Your task to perform on an android device: Open display settings Image 0: 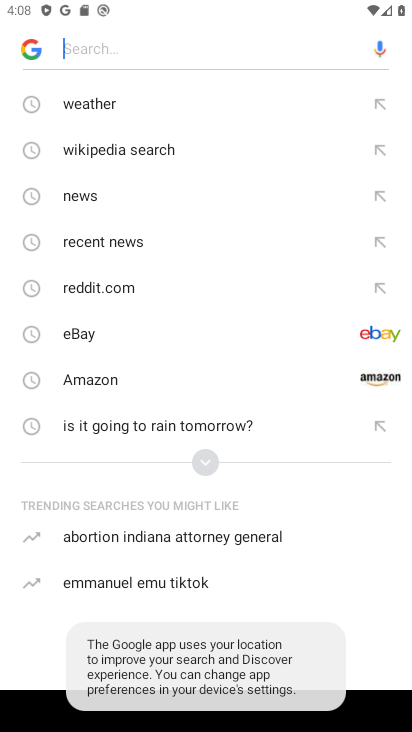
Step 0: press home button
Your task to perform on an android device: Open display settings Image 1: 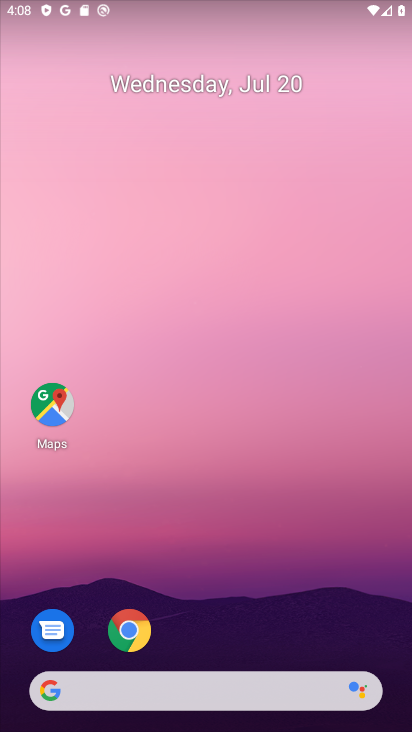
Step 1: click (158, 211)
Your task to perform on an android device: Open display settings Image 2: 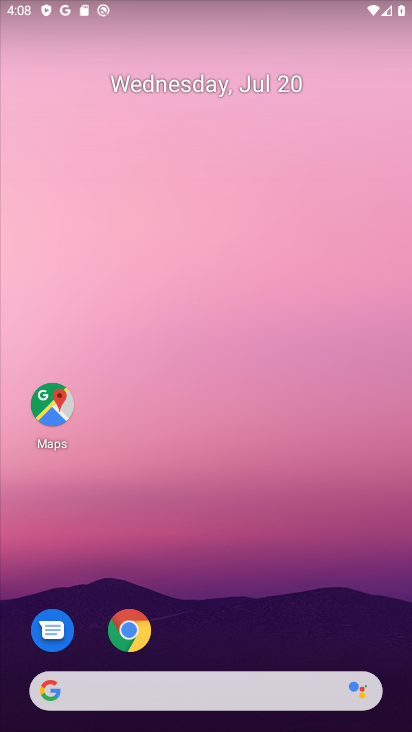
Step 2: drag from (265, 664) to (266, 88)
Your task to perform on an android device: Open display settings Image 3: 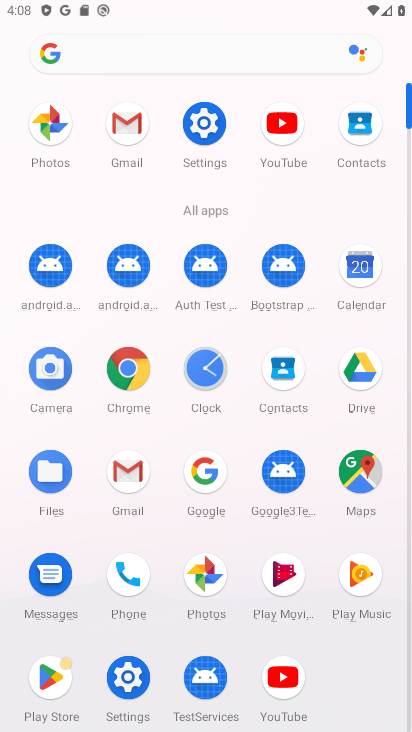
Step 3: click (205, 122)
Your task to perform on an android device: Open display settings Image 4: 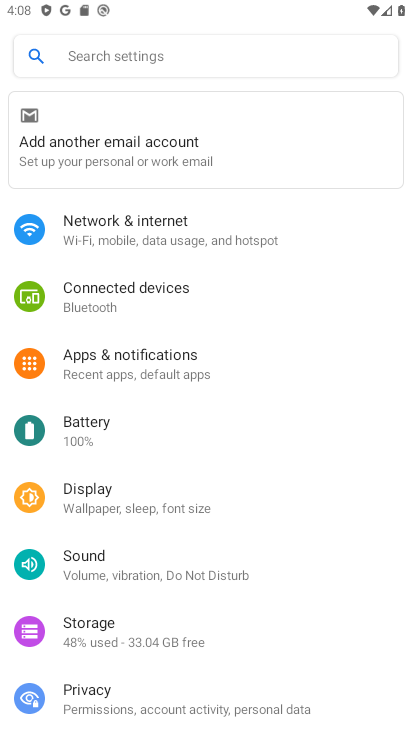
Step 4: click (86, 495)
Your task to perform on an android device: Open display settings Image 5: 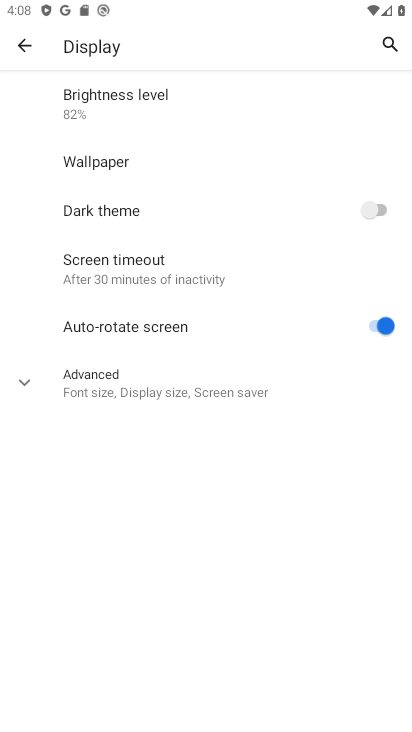
Step 5: click (91, 383)
Your task to perform on an android device: Open display settings Image 6: 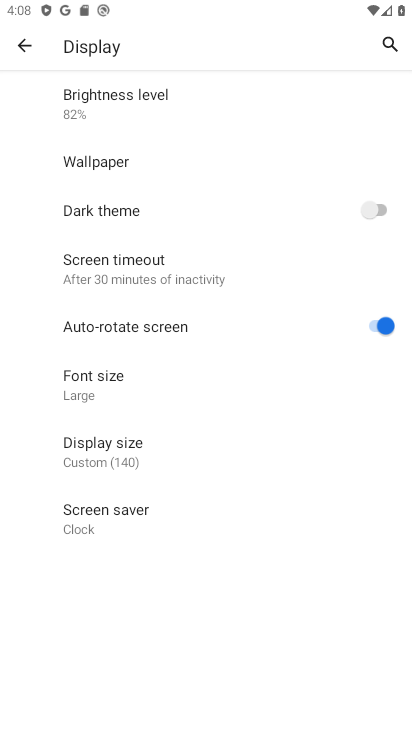
Step 6: task complete